Your task to perform on an android device: choose inbox layout in the gmail app Image 0: 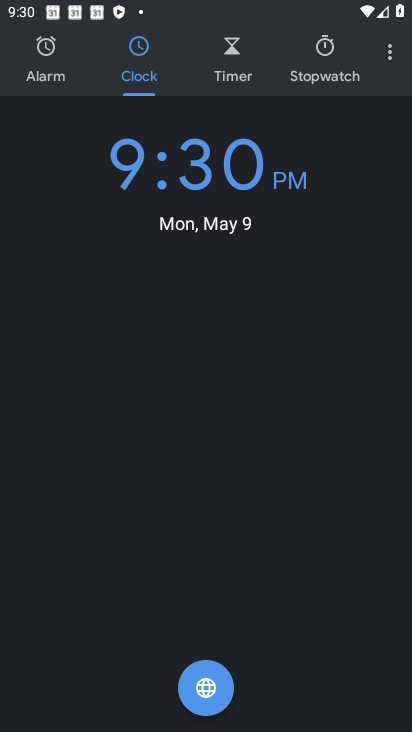
Step 0: press home button
Your task to perform on an android device: choose inbox layout in the gmail app Image 1: 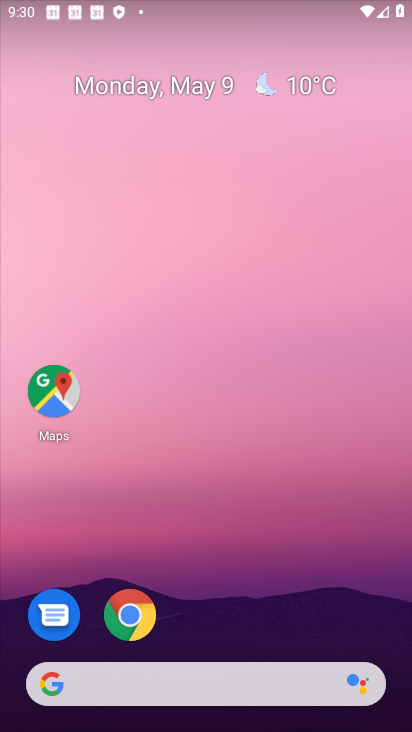
Step 1: drag from (198, 615) to (288, 0)
Your task to perform on an android device: choose inbox layout in the gmail app Image 2: 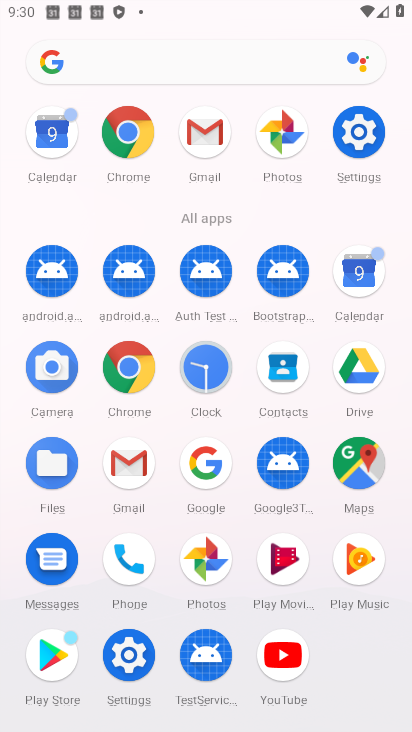
Step 2: click (197, 157)
Your task to perform on an android device: choose inbox layout in the gmail app Image 3: 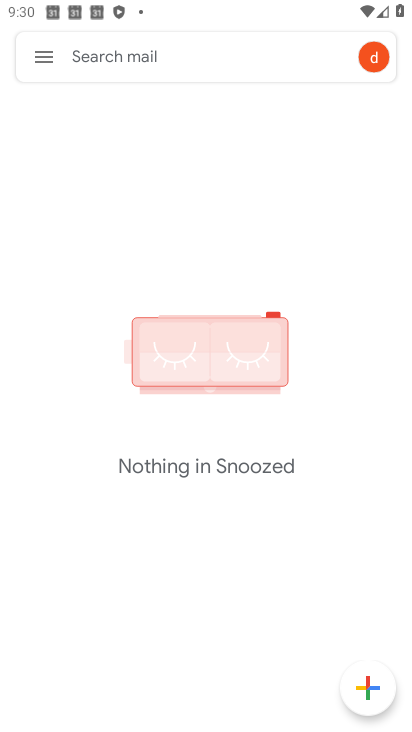
Step 3: click (44, 61)
Your task to perform on an android device: choose inbox layout in the gmail app Image 4: 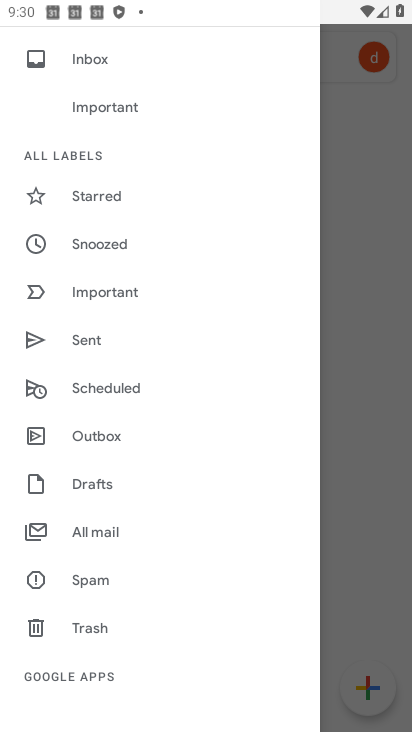
Step 4: drag from (139, 143) to (174, 39)
Your task to perform on an android device: choose inbox layout in the gmail app Image 5: 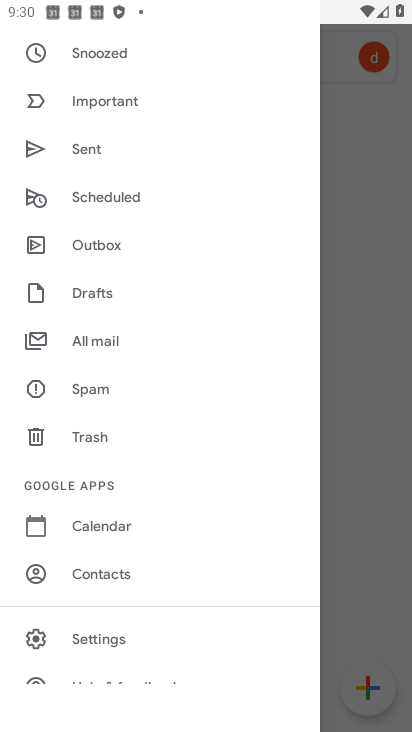
Step 5: click (88, 641)
Your task to perform on an android device: choose inbox layout in the gmail app Image 6: 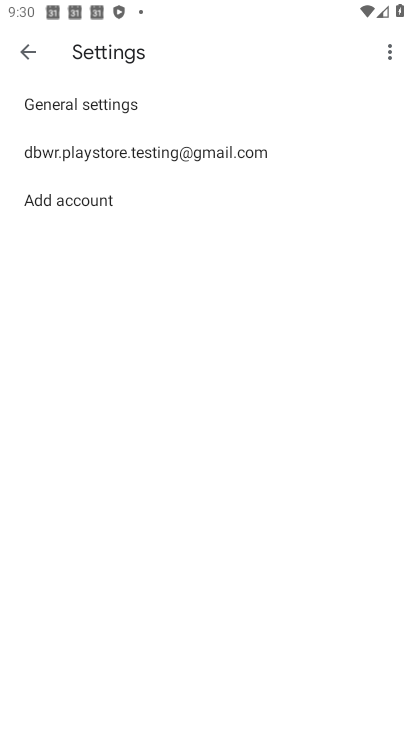
Step 6: click (131, 147)
Your task to perform on an android device: choose inbox layout in the gmail app Image 7: 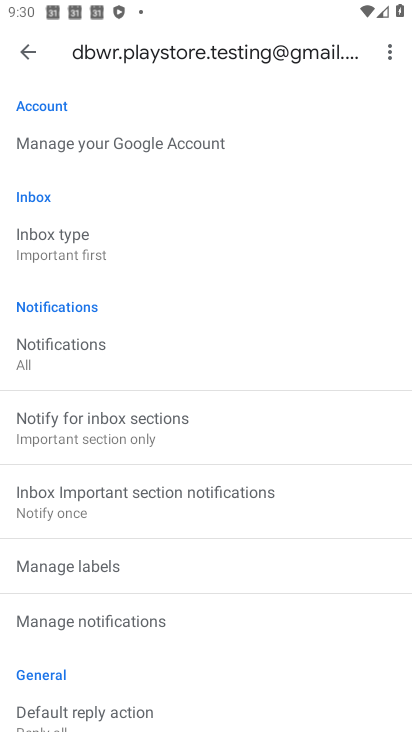
Step 7: click (126, 234)
Your task to perform on an android device: choose inbox layout in the gmail app Image 8: 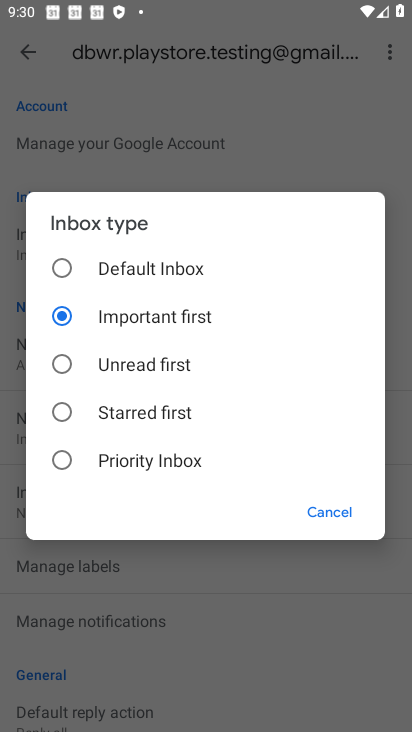
Step 8: click (62, 267)
Your task to perform on an android device: choose inbox layout in the gmail app Image 9: 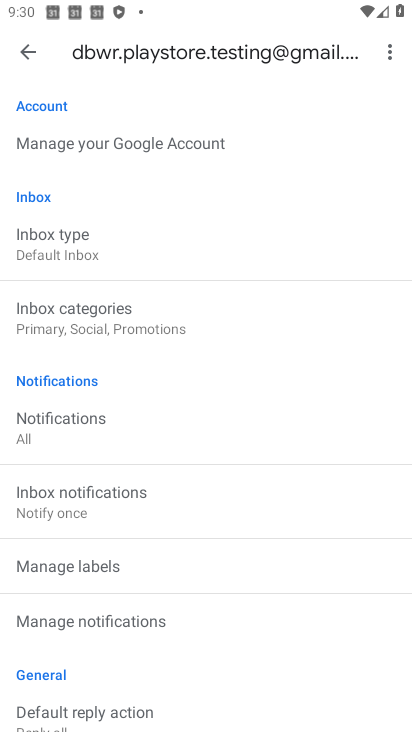
Step 9: task complete